Your task to perform on an android device: toggle sleep mode Image 0: 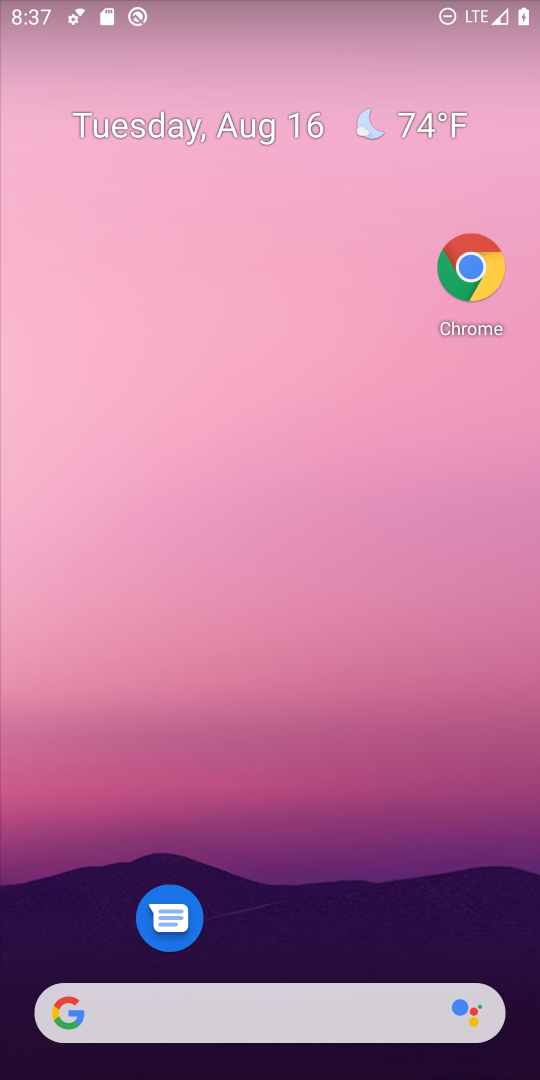
Step 0: drag from (352, 903) to (260, 453)
Your task to perform on an android device: toggle sleep mode Image 1: 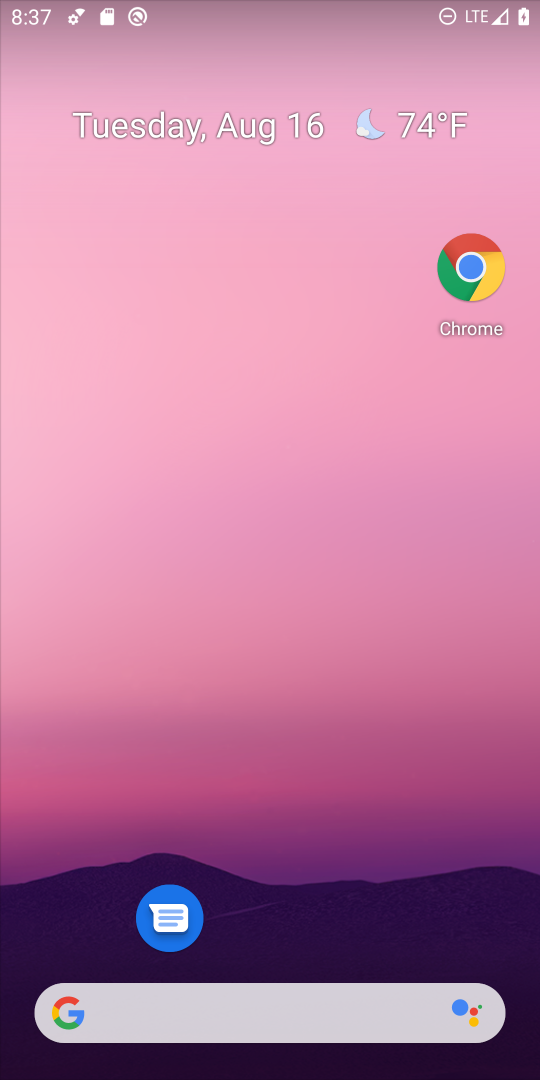
Step 1: drag from (246, 965) to (215, 372)
Your task to perform on an android device: toggle sleep mode Image 2: 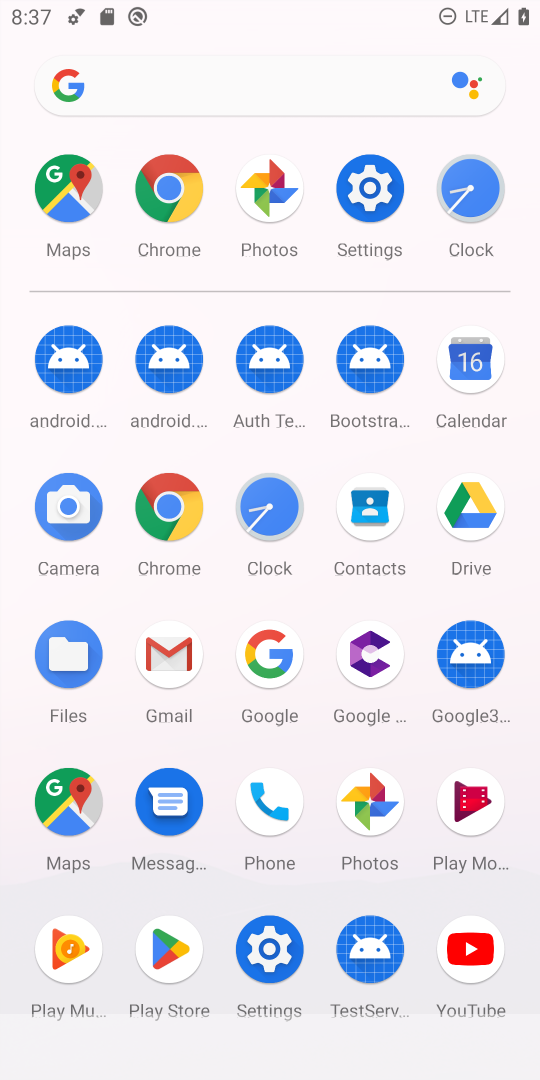
Step 2: click (383, 227)
Your task to perform on an android device: toggle sleep mode Image 3: 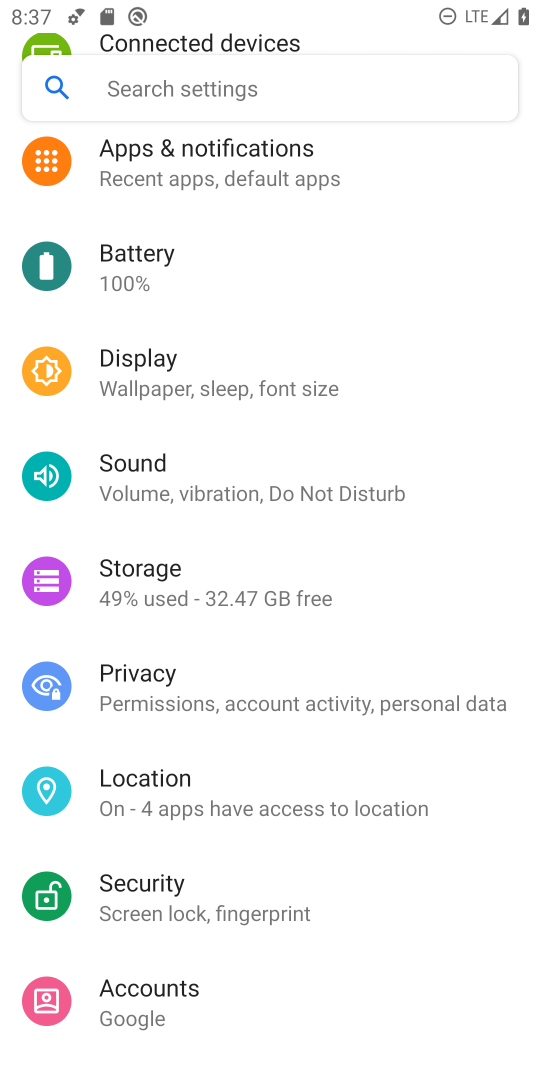
Step 3: click (241, 384)
Your task to perform on an android device: toggle sleep mode Image 4: 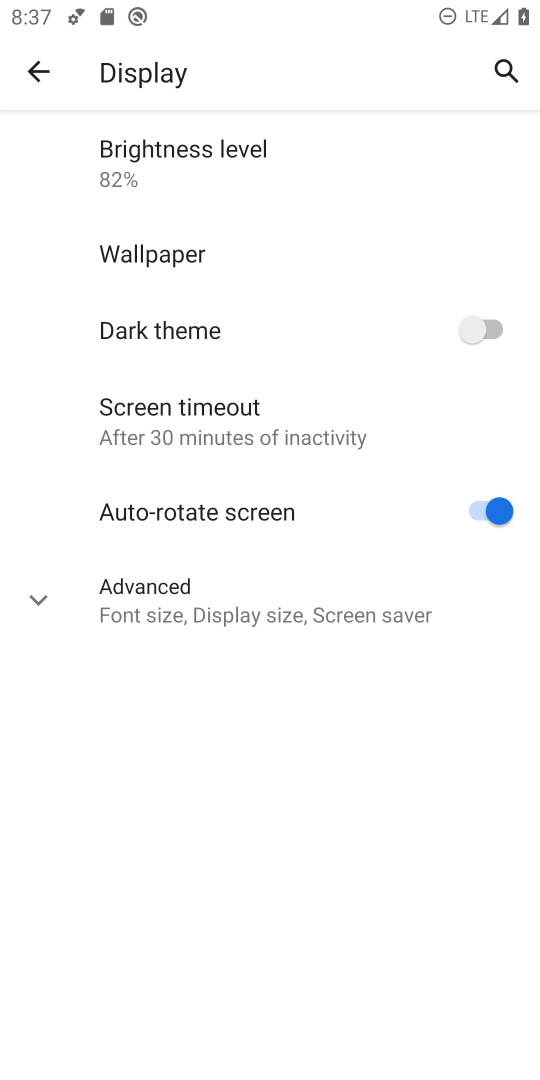
Step 4: click (242, 609)
Your task to perform on an android device: toggle sleep mode Image 5: 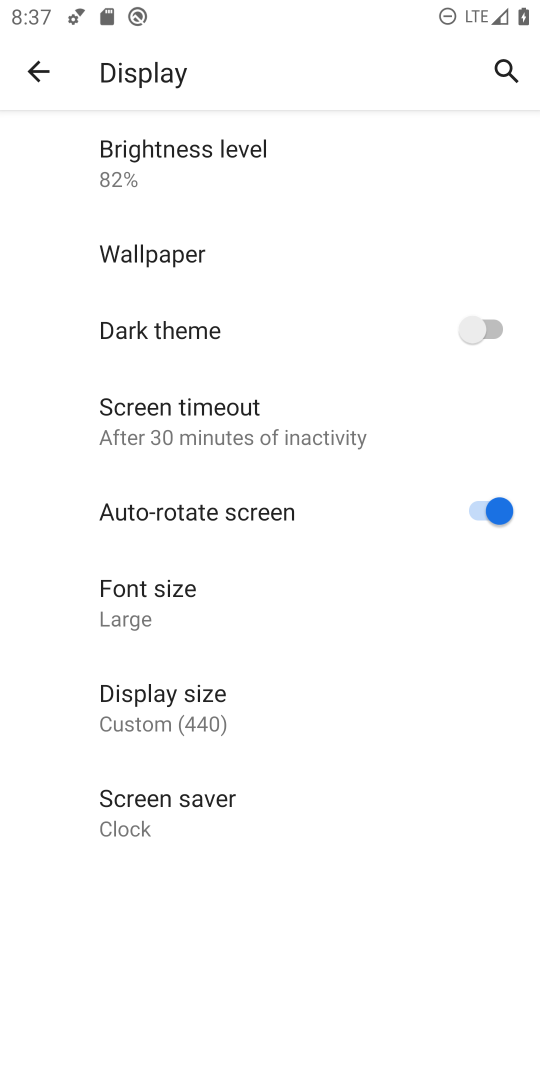
Step 5: task complete